Your task to perform on an android device: Open the stopwatch Image 0: 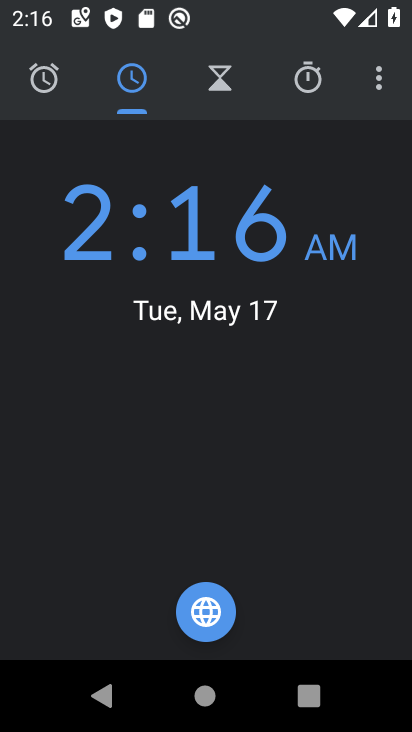
Step 0: click (324, 83)
Your task to perform on an android device: Open the stopwatch Image 1: 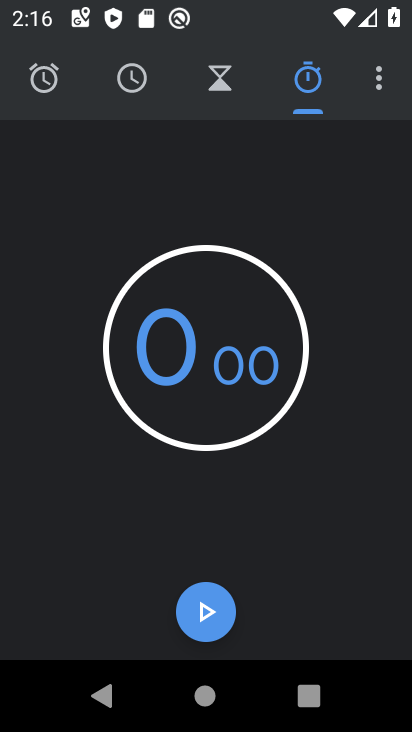
Step 1: task complete